Your task to perform on an android device: make emails show in primary in the gmail app Image 0: 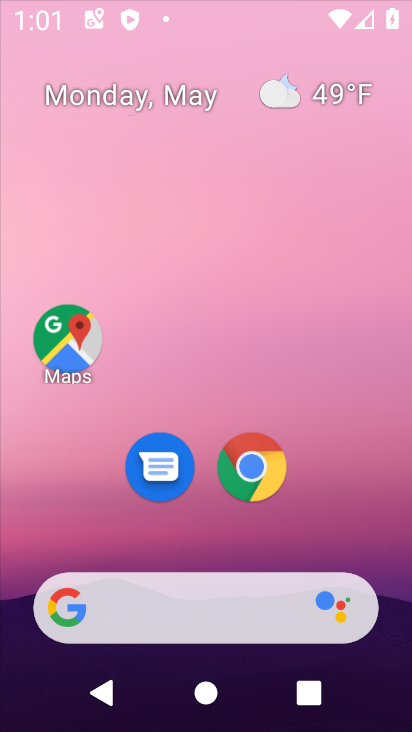
Step 0: drag from (360, 502) to (329, 187)
Your task to perform on an android device: make emails show in primary in the gmail app Image 1: 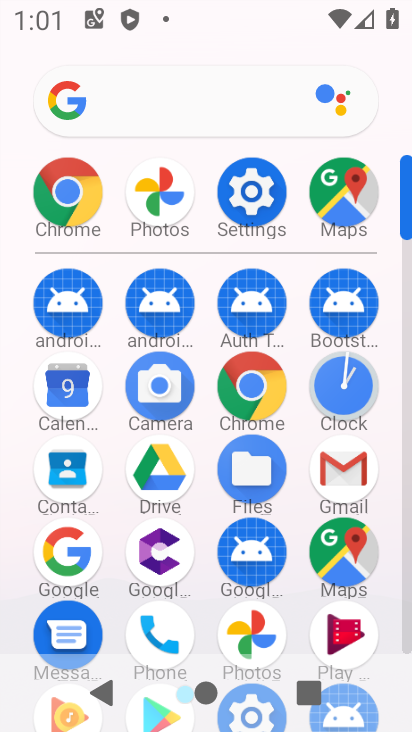
Step 1: click (350, 475)
Your task to perform on an android device: make emails show in primary in the gmail app Image 2: 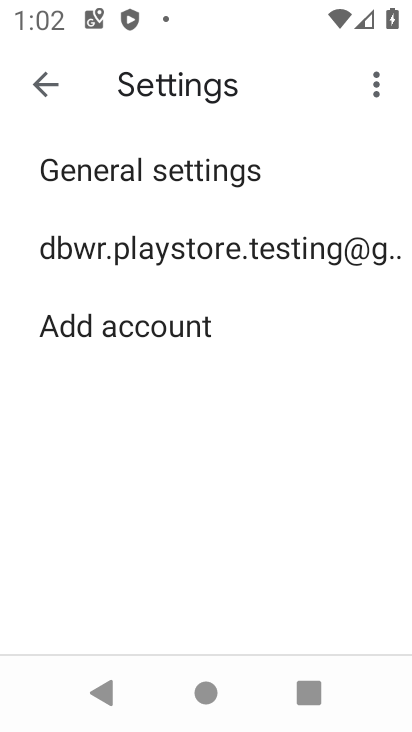
Step 2: click (271, 245)
Your task to perform on an android device: make emails show in primary in the gmail app Image 3: 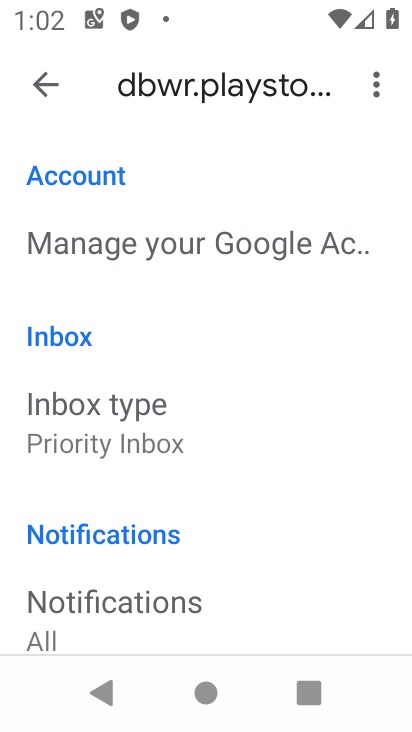
Step 3: click (196, 455)
Your task to perform on an android device: make emails show in primary in the gmail app Image 4: 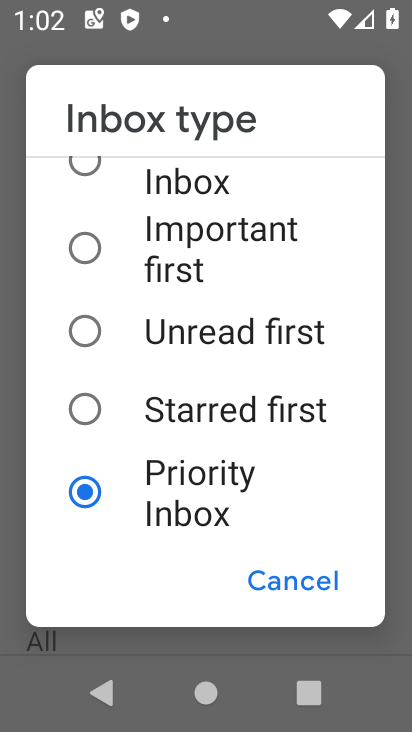
Step 4: drag from (181, 188) to (198, 459)
Your task to perform on an android device: make emails show in primary in the gmail app Image 5: 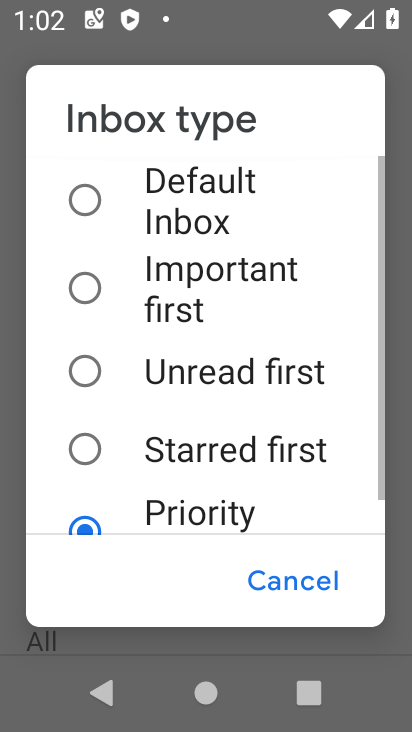
Step 5: click (156, 205)
Your task to perform on an android device: make emails show in primary in the gmail app Image 6: 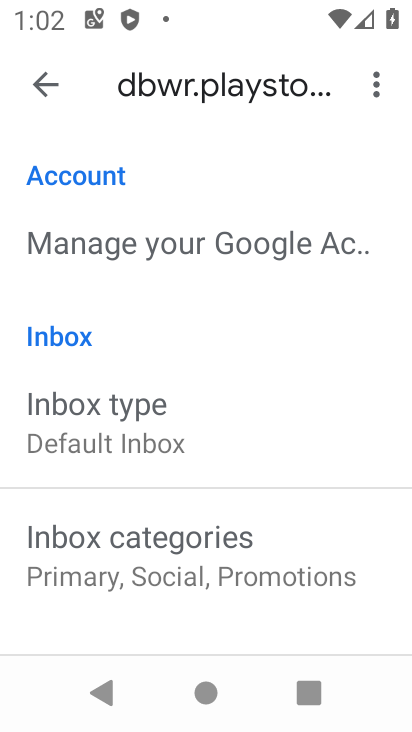
Step 6: task complete